Your task to perform on an android device: stop showing notifications on the lock screen Image 0: 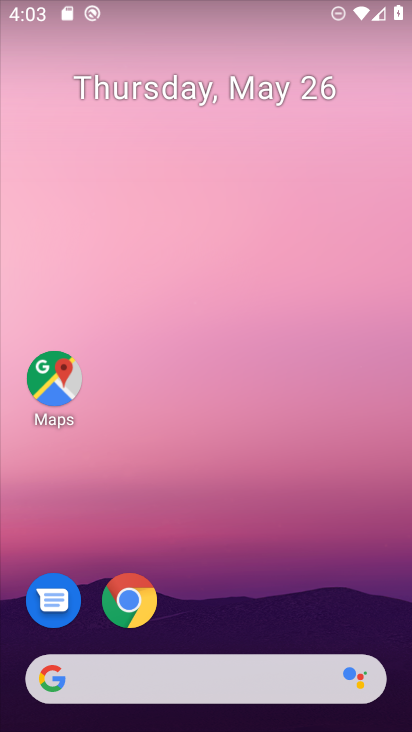
Step 0: drag from (253, 557) to (208, 98)
Your task to perform on an android device: stop showing notifications on the lock screen Image 1: 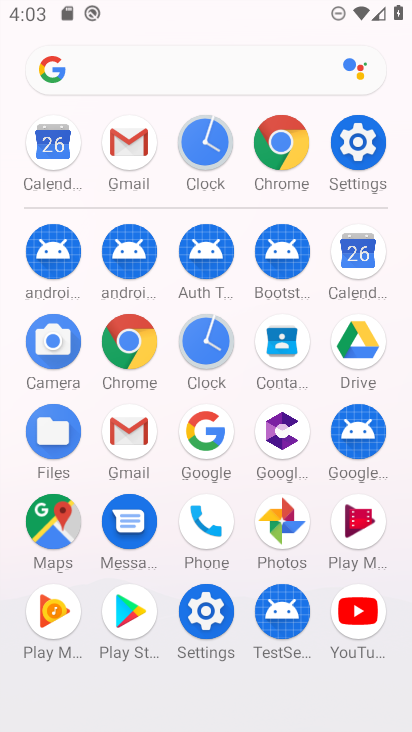
Step 1: drag from (7, 580) to (26, 210)
Your task to perform on an android device: stop showing notifications on the lock screen Image 2: 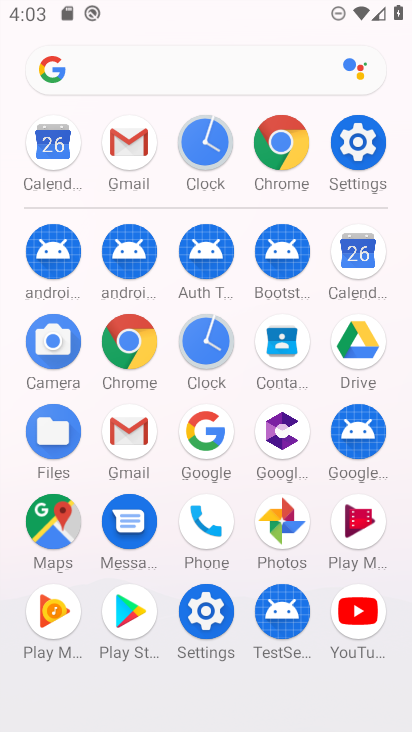
Step 2: drag from (2, 656) to (0, 318)
Your task to perform on an android device: stop showing notifications on the lock screen Image 3: 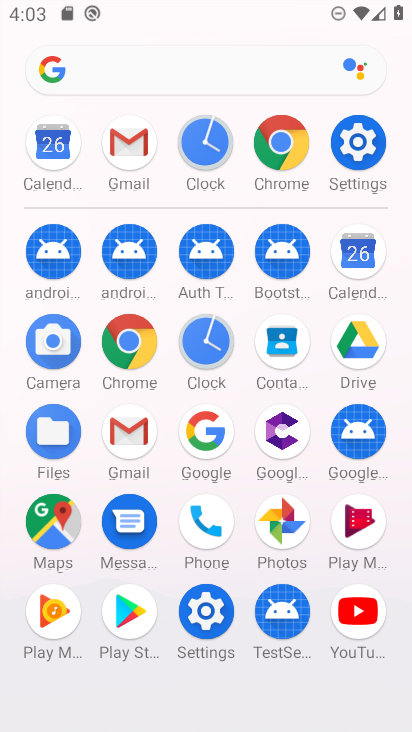
Step 3: click (208, 608)
Your task to perform on an android device: stop showing notifications on the lock screen Image 4: 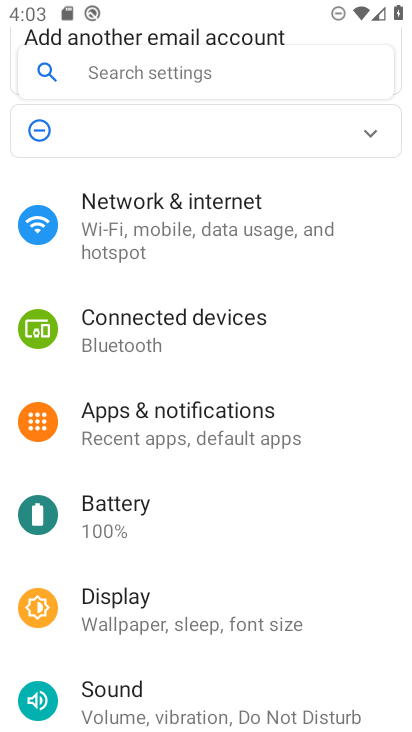
Step 4: click (201, 432)
Your task to perform on an android device: stop showing notifications on the lock screen Image 5: 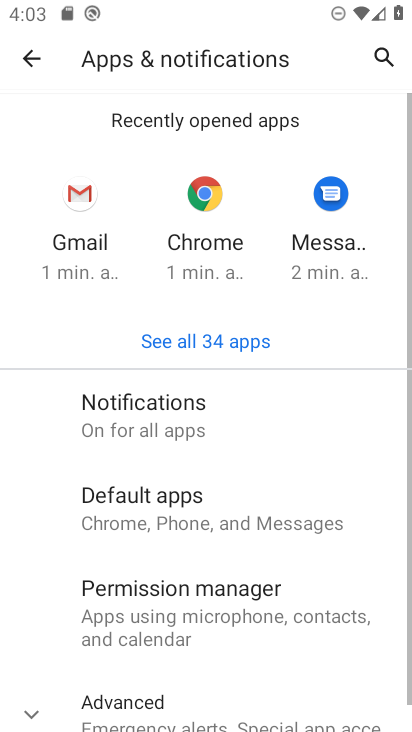
Step 5: click (31, 711)
Your task to perform on an android device: stop showing notifications on the lock screen Image 6: 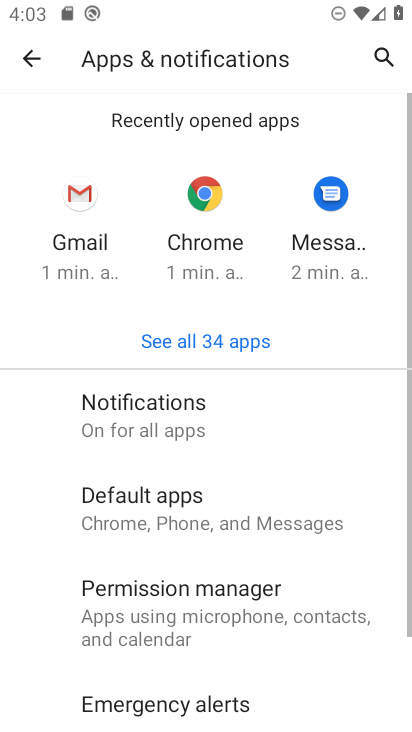
Step 6: click (239, 444)
Your task to perform on an android device: stop showing notifications on the lock screen Image 7: 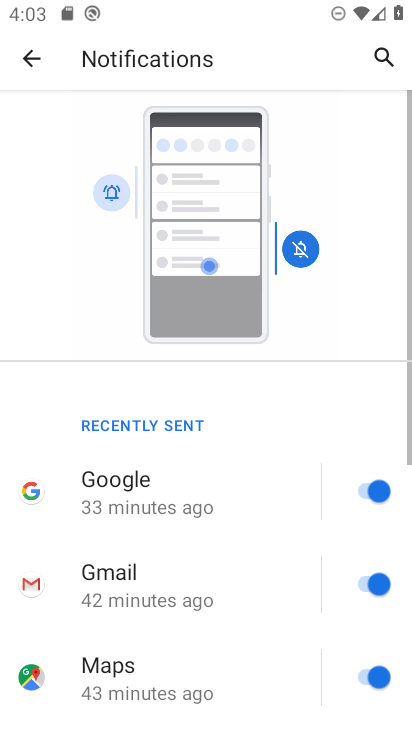
Step 7: drag from (237, 610) to (258, 125)
Your task to perform on an android device: stop showing notifications on the lock screen Image 8: 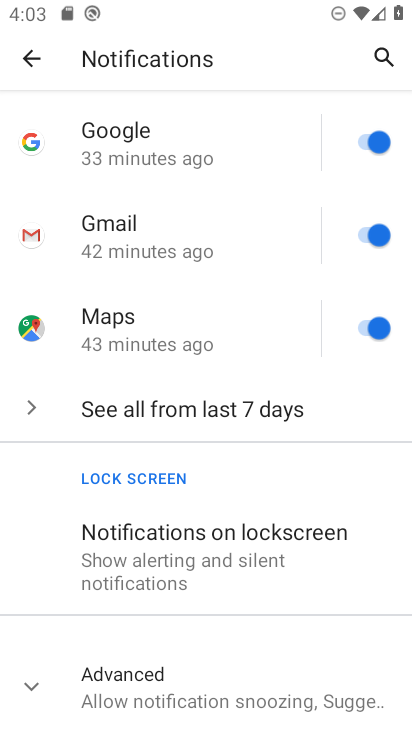
Step 8: click (172, 573)
Your task to perform on an android device: stop showing notifications on the lock screen Image 9: 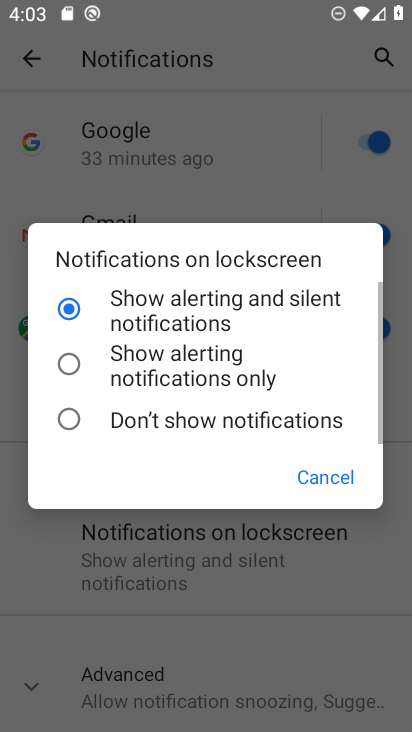
Step 9: click (189, 430)
Your task to perform on an android device: stop showing notifications on the lock screen Image 10: 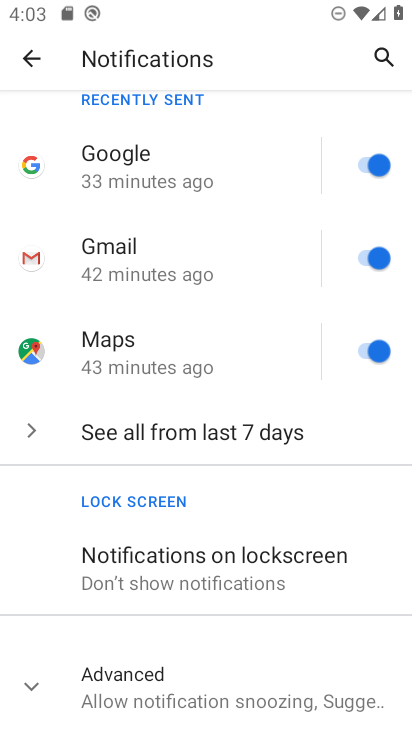
Step 10: task complete